Your task to perform on an android device: toggle show notifications on the lock screen Image 0: 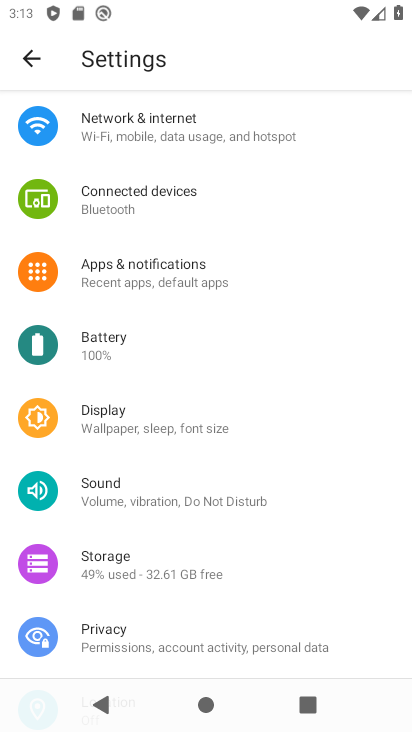
Step 0: click (168, 289)
Your task to perform on an android device: toggle show notifications on the lock screen Image 1: 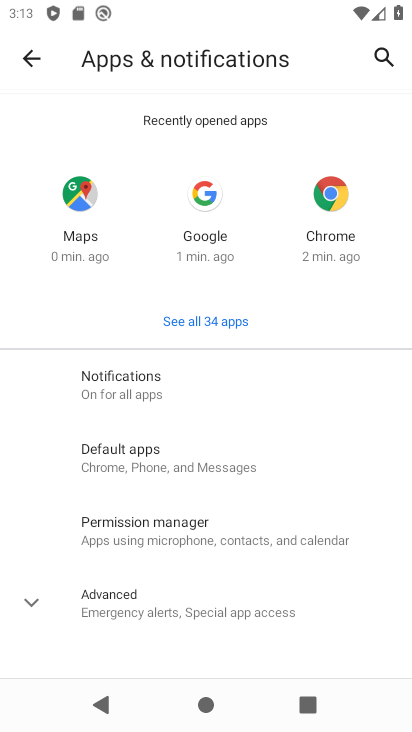
Step 1: click (148, 384)
Your task to perform on an android device: toggle show notifications on the lock screen Image 2: 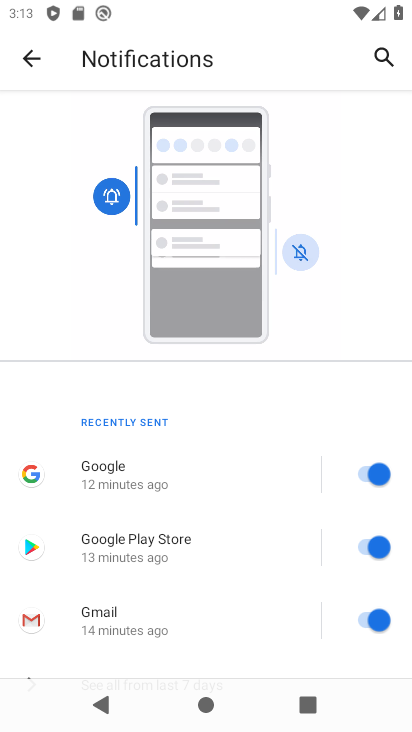
Step 2: drag from (156, 650) to (213, 165)
Your task to perform on an android device: toggle show notifications on the lock screen Image 3: 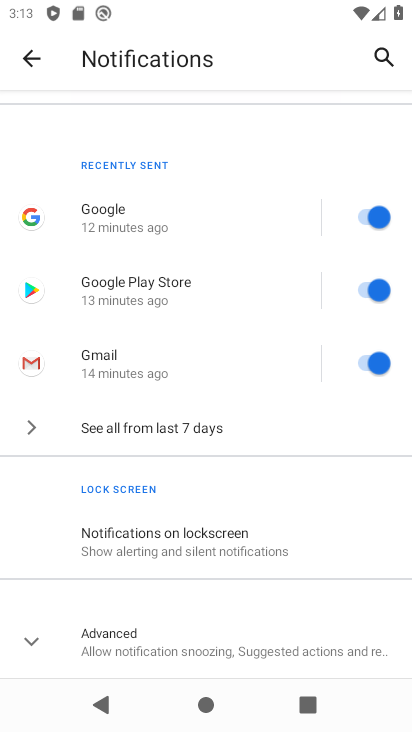
Step 3: click (130, 559)
Your task to perform on an android device: toggle show notifications on the lock screen Image 4: 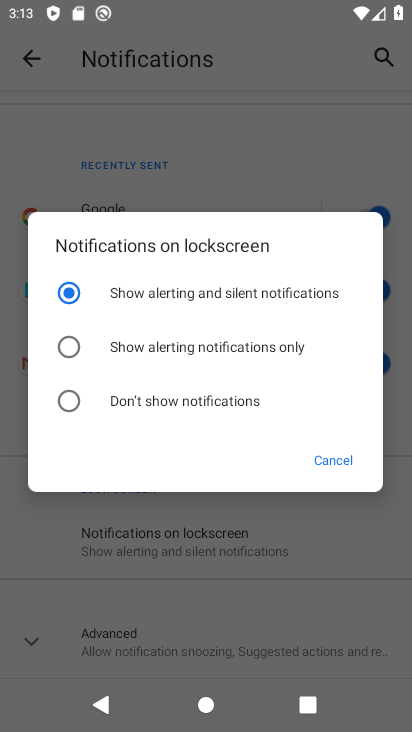
Step 4: click (67, 350)
Your task to perform on an android device: toggle show notifications on the lock screen Image 5: 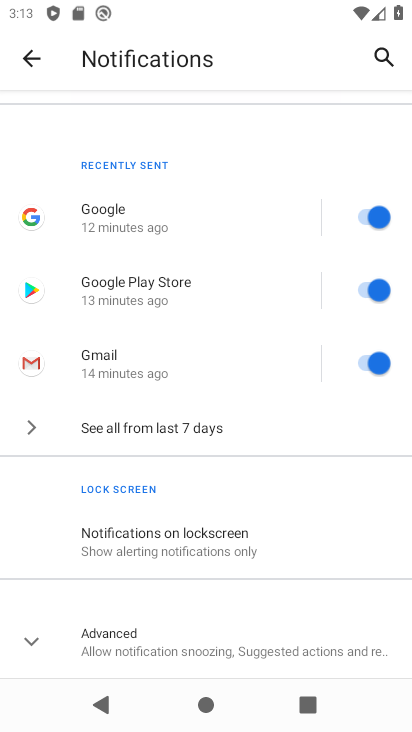
Step 5: task complete